Your task to perform on an android device: Open Chrome and go to the settings page Image 0: 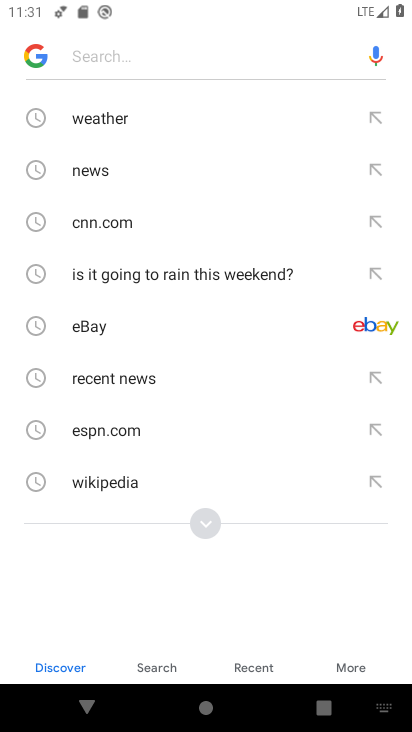
Step 0: press home button
Your task to perform on an android device: Open Chrome and go to the settings page Image 1: 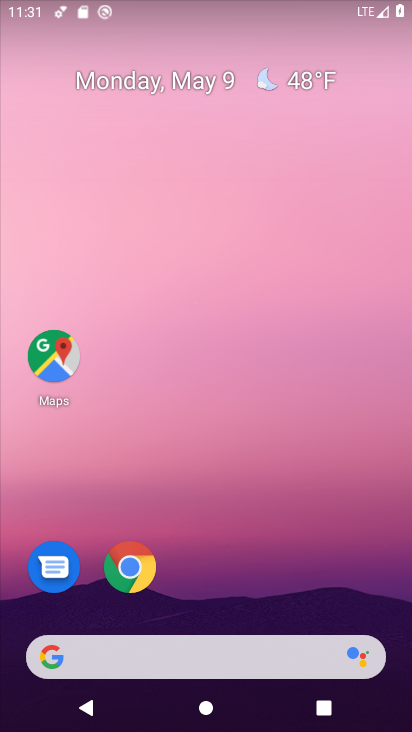
Step 1: click (122, 579)
Your task to perform on an android device: Open Chrome and go to the settings page Image 2: 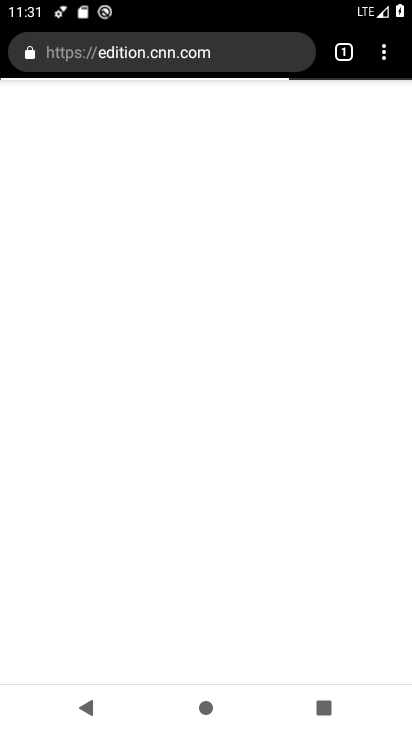
Step 2: click (387, 64)
Your task to perform on an android device: Open Chrome and go to the settings page Image 3: 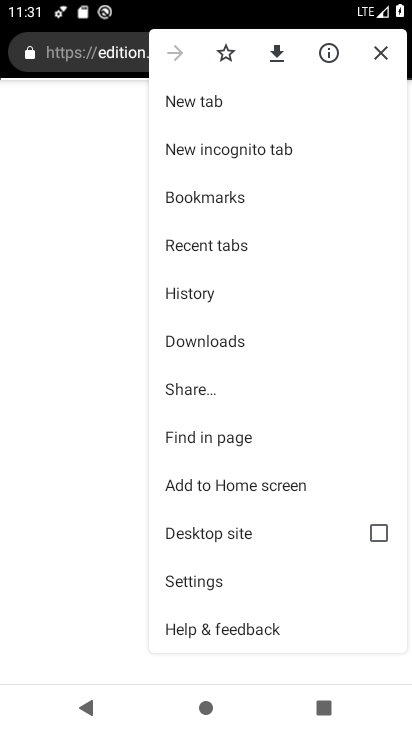
Step 3: click (204, 589)
Your task to perform on an android device: Open Chrome and go to the settings page Image 4: 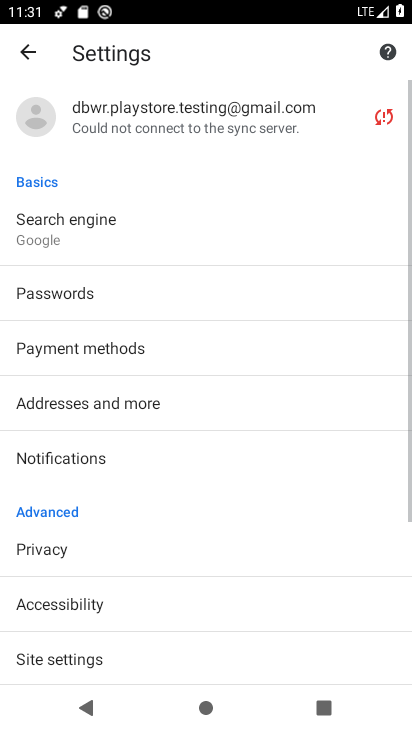
Step 4: task complete